Your task to perform on an android device: change text size in settings app Image 0: 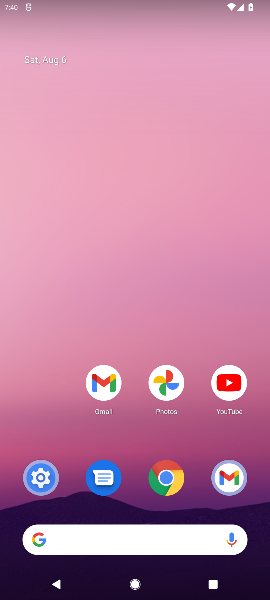
Step 0: press home button
Your task to perform on an android device: change text size in settings app Image 1: 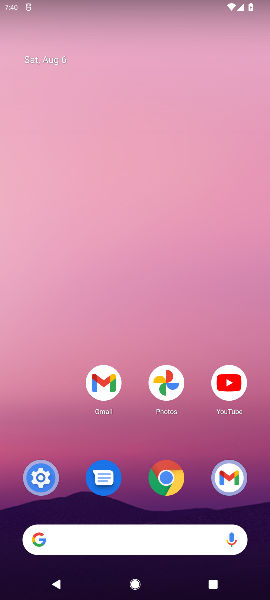
Step 1: click (40, 472)
Your task to perform on an android device: change text size in settings app Image 2: 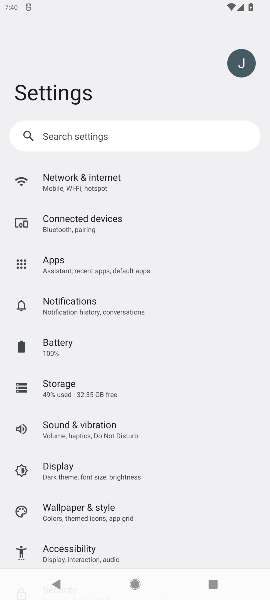
Step 2: click (60, 461)
Your task to perform on an android device: change text size in settings app Image 3: 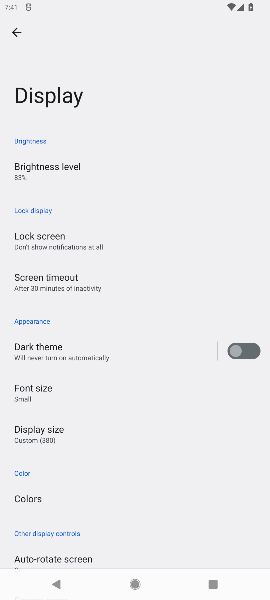
Step 3: click (32, 396)
Your task to perform on an android device: change text size in settings app Image 4: 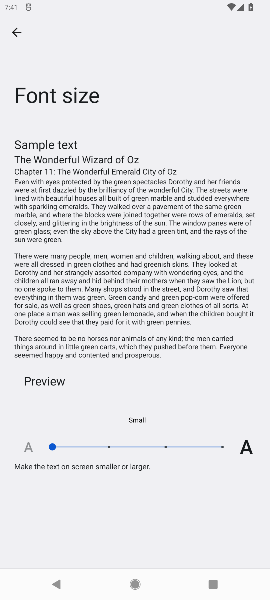
Step 4: click (163, 445)
Your task to perform on an android device: change text size in settings app Image 5: 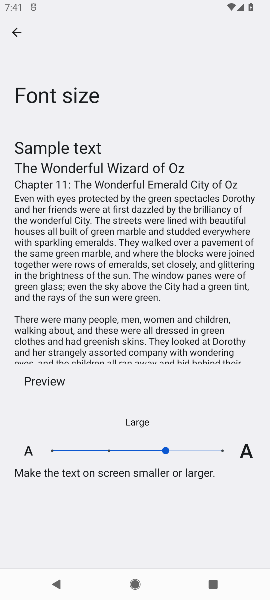
Step 5: task complete